Your task to perform on an android device: all mails in gmail Image 0: 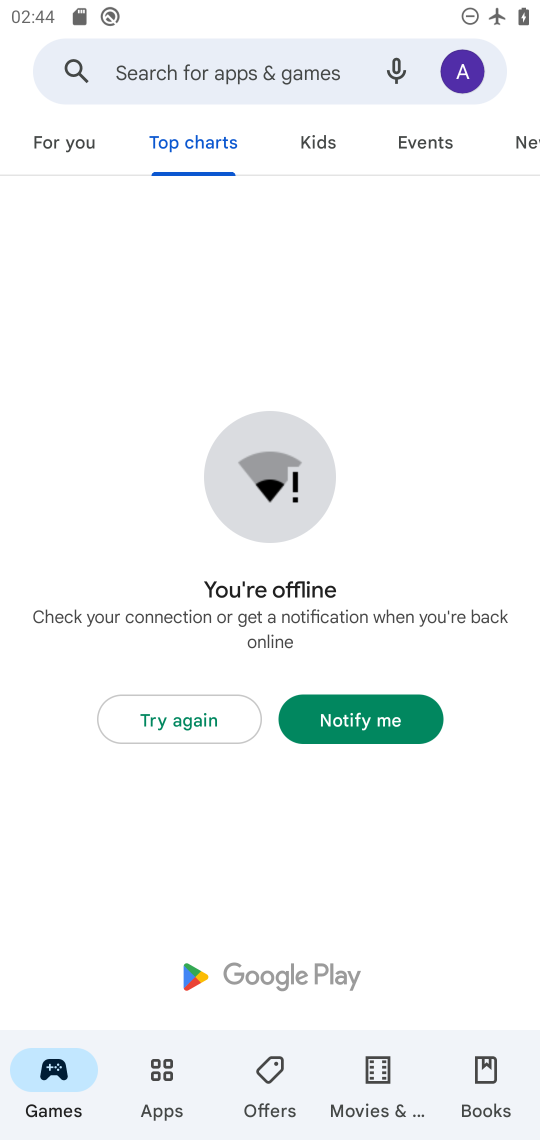
Step 0: press home button
Your task to perform on an android device: all mails in gmail Image 1: 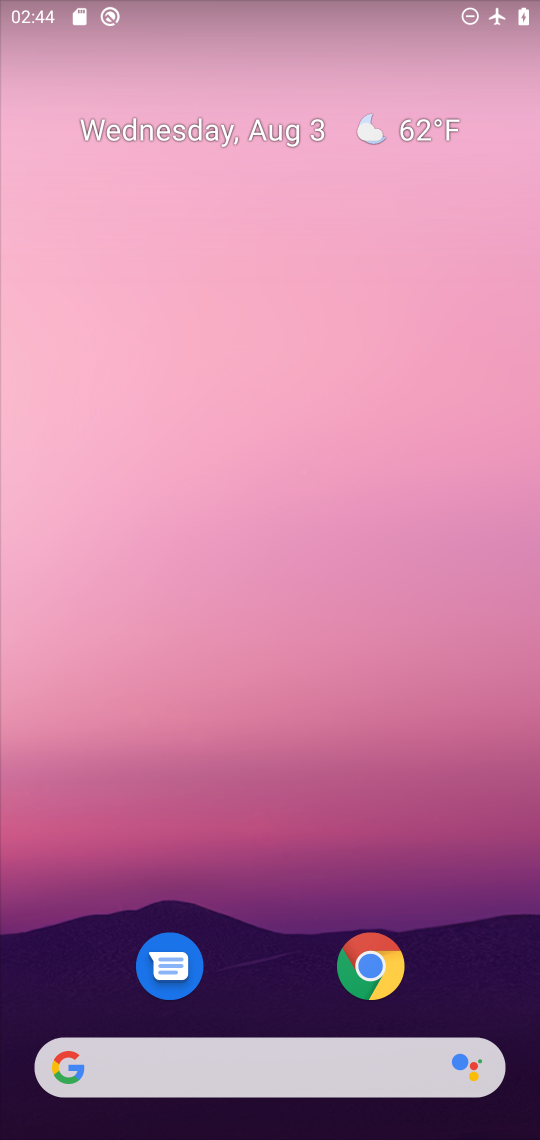
Step 1: drag from (270, 930) to (296, 323)
Your task to perform on an android device: all mails in gmail Image 2: 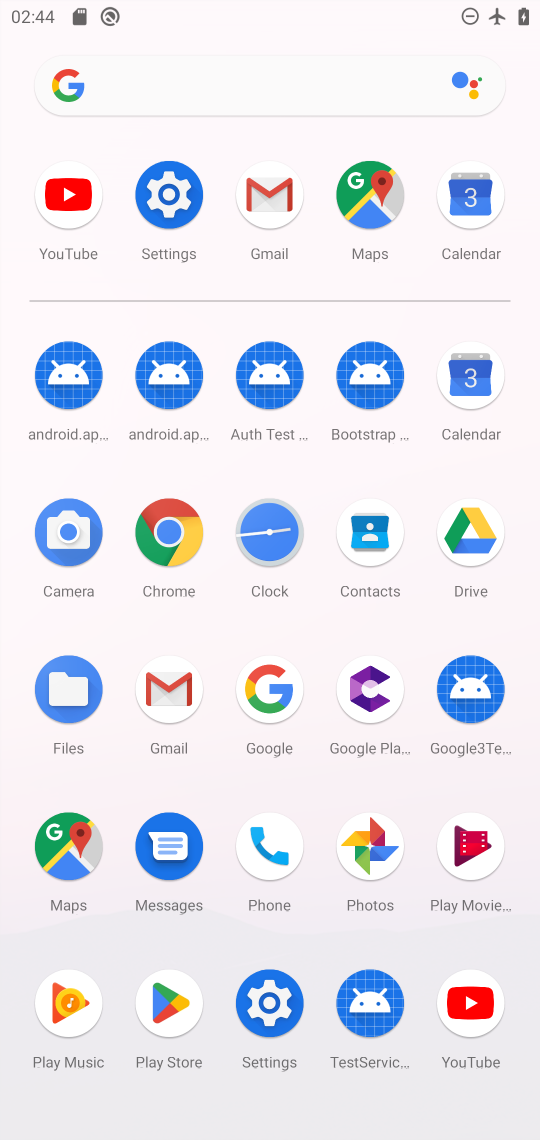
Step 2: click (259, 279)
Your task to perform on an android device: all mails in gmail Image 3: 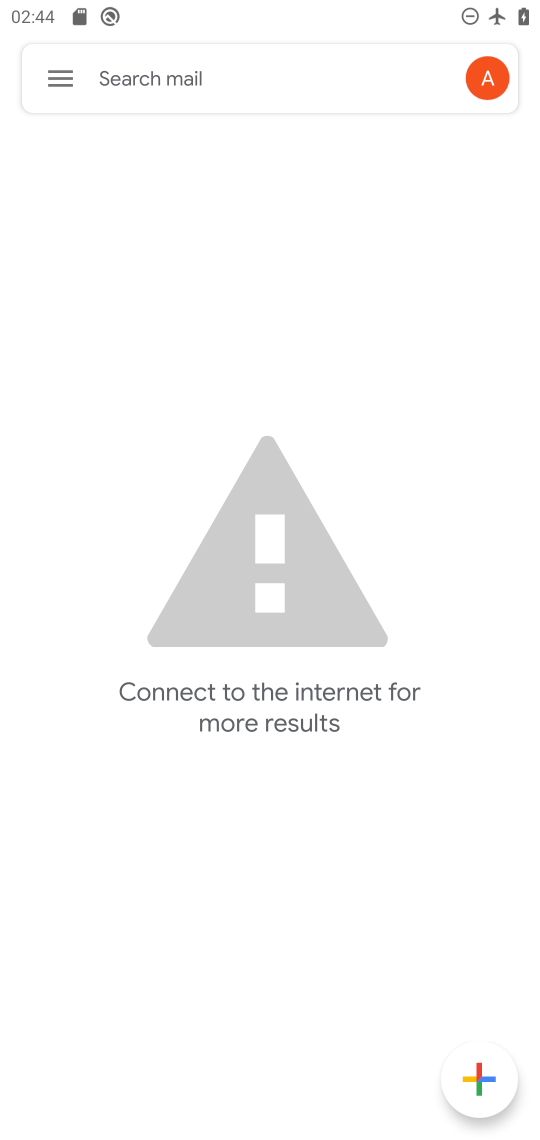
Step 3: click (74, 165)
Your task to perform on an android device: all mails in gmail Image 4: 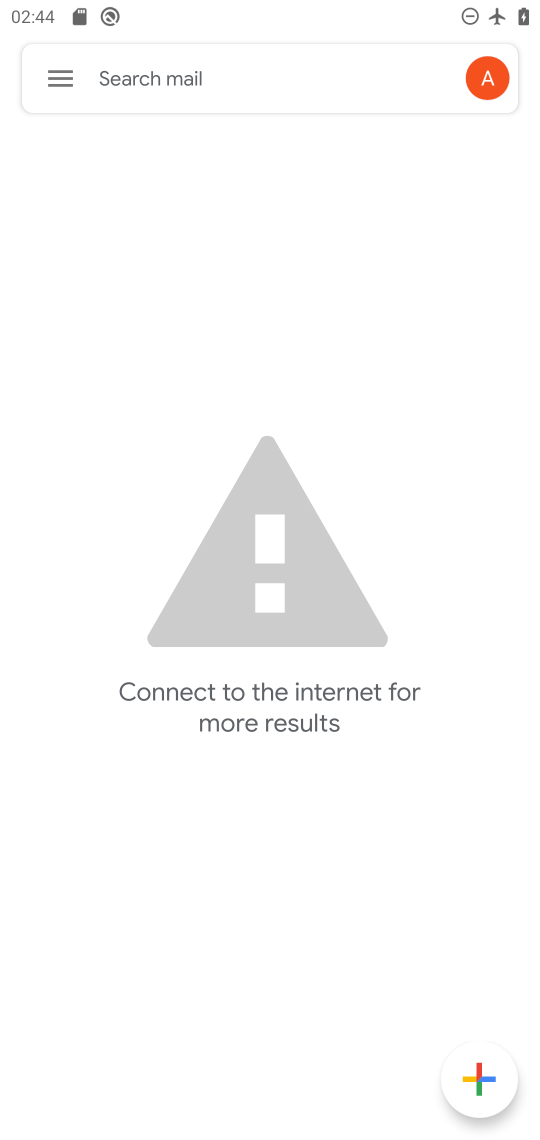
Step 4: click (61, 79)
Your task to perform on an android device: all mails in gmail Image 5: 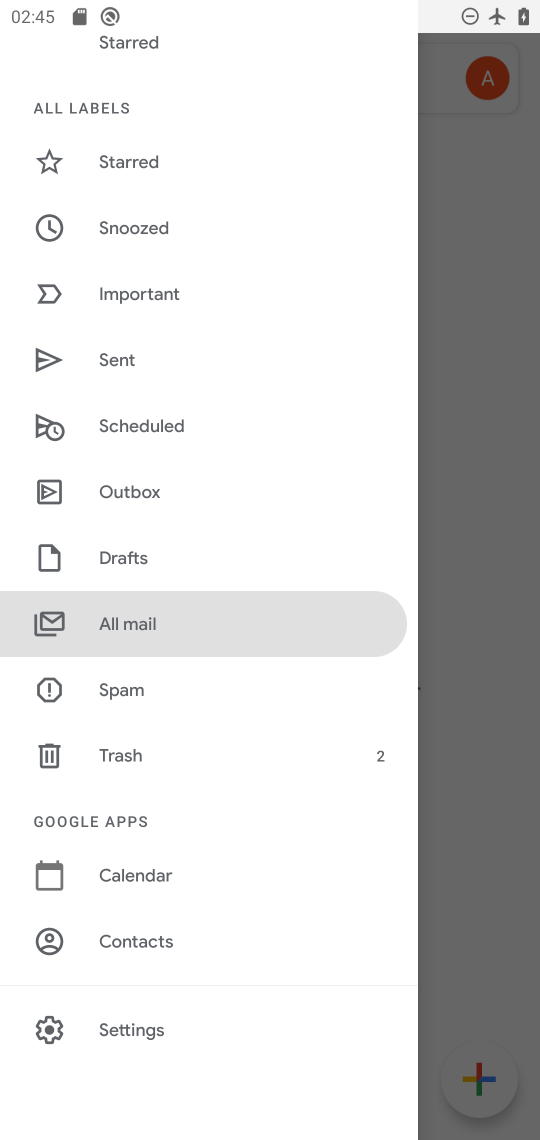
Step 5: click (157, 625)
Your task to perform on an android device: all mails in gmail Image 6: 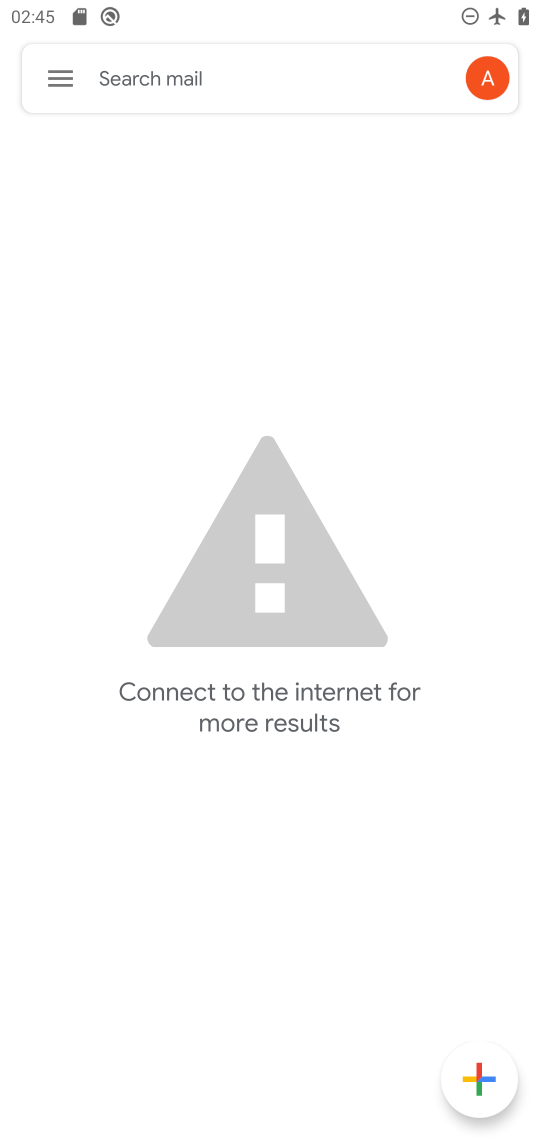
Step 6: task complete